Your task to perform on an android device: check battery use Image 0: 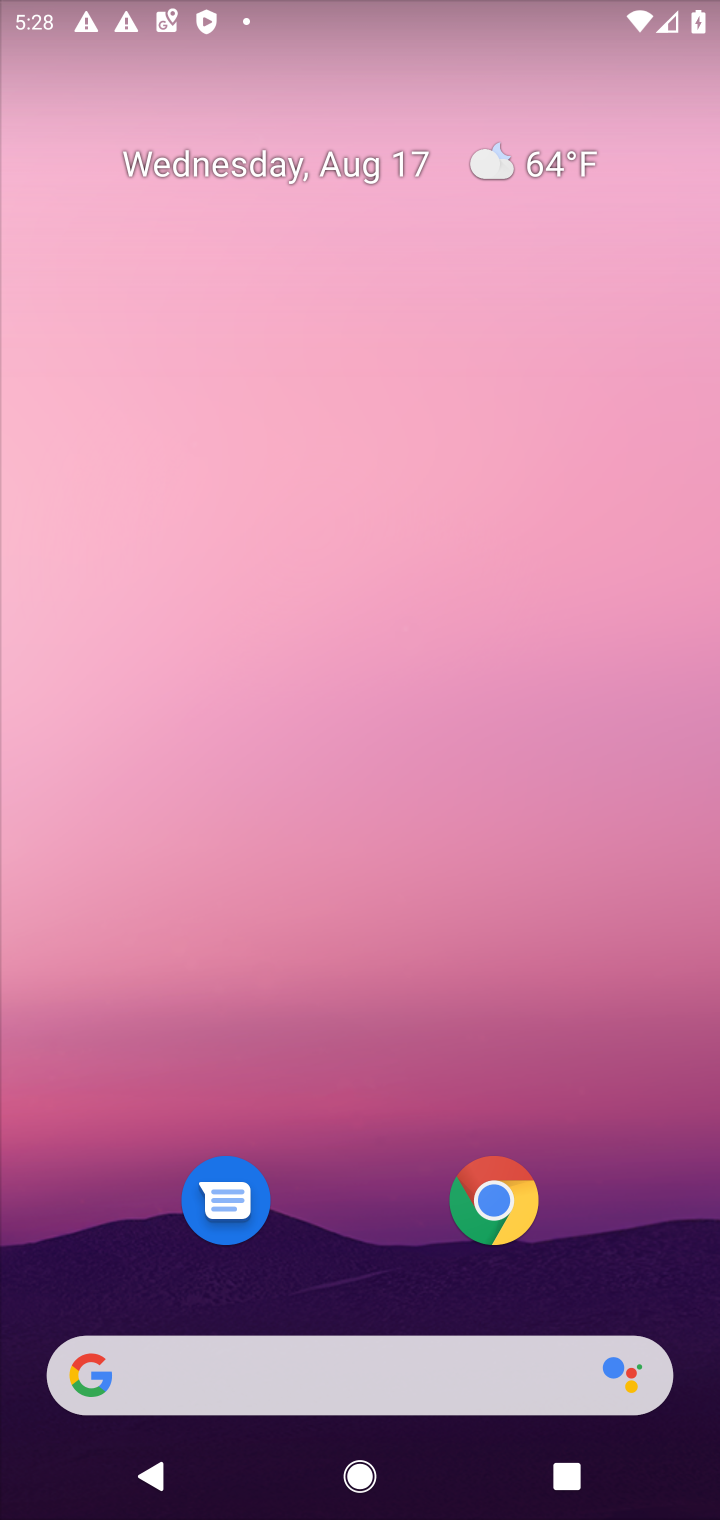
Step 0: drag from (369, 1312) to (397, 65)
Your task to perform on an android device: check battery use Image 1: 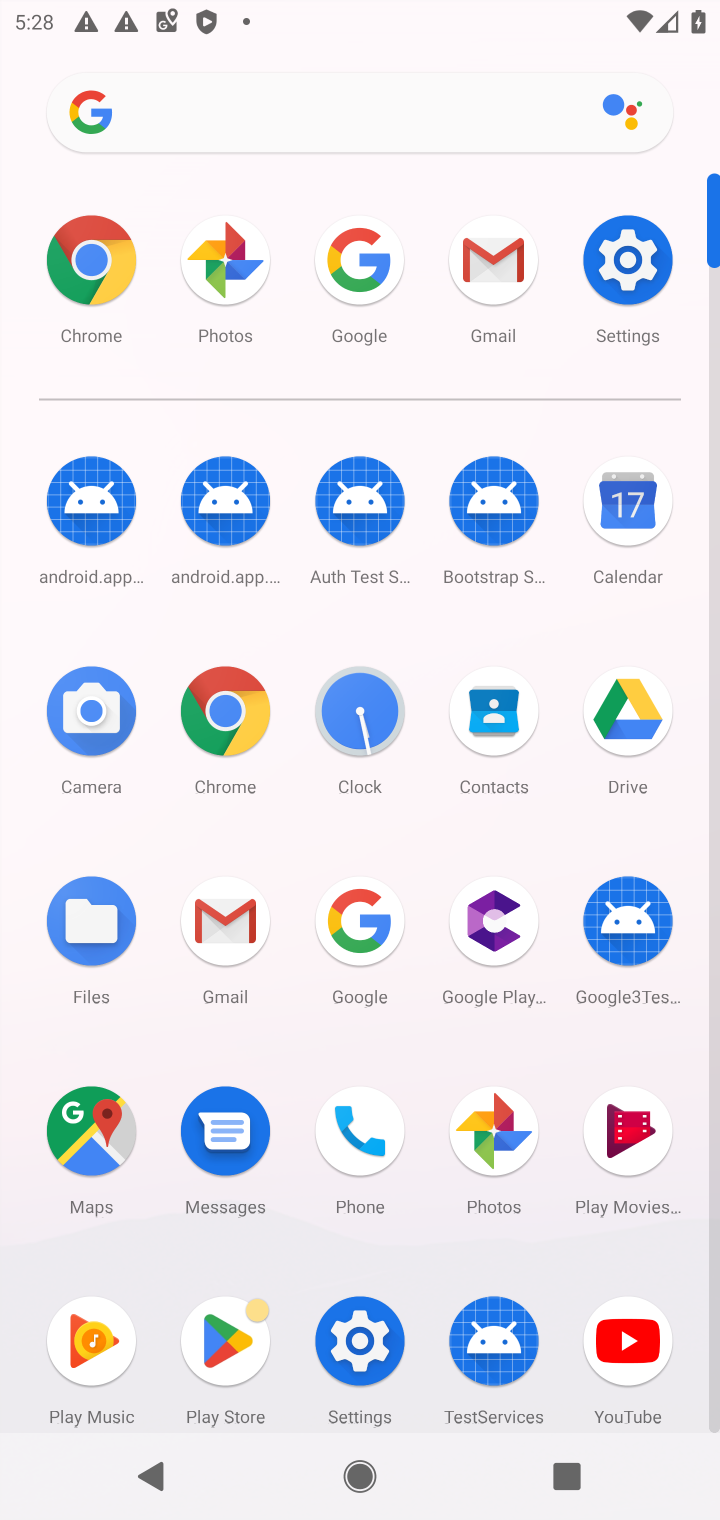
Step 1: click (632, 256)
Your task to perform on an android device: check battery use Image 2: 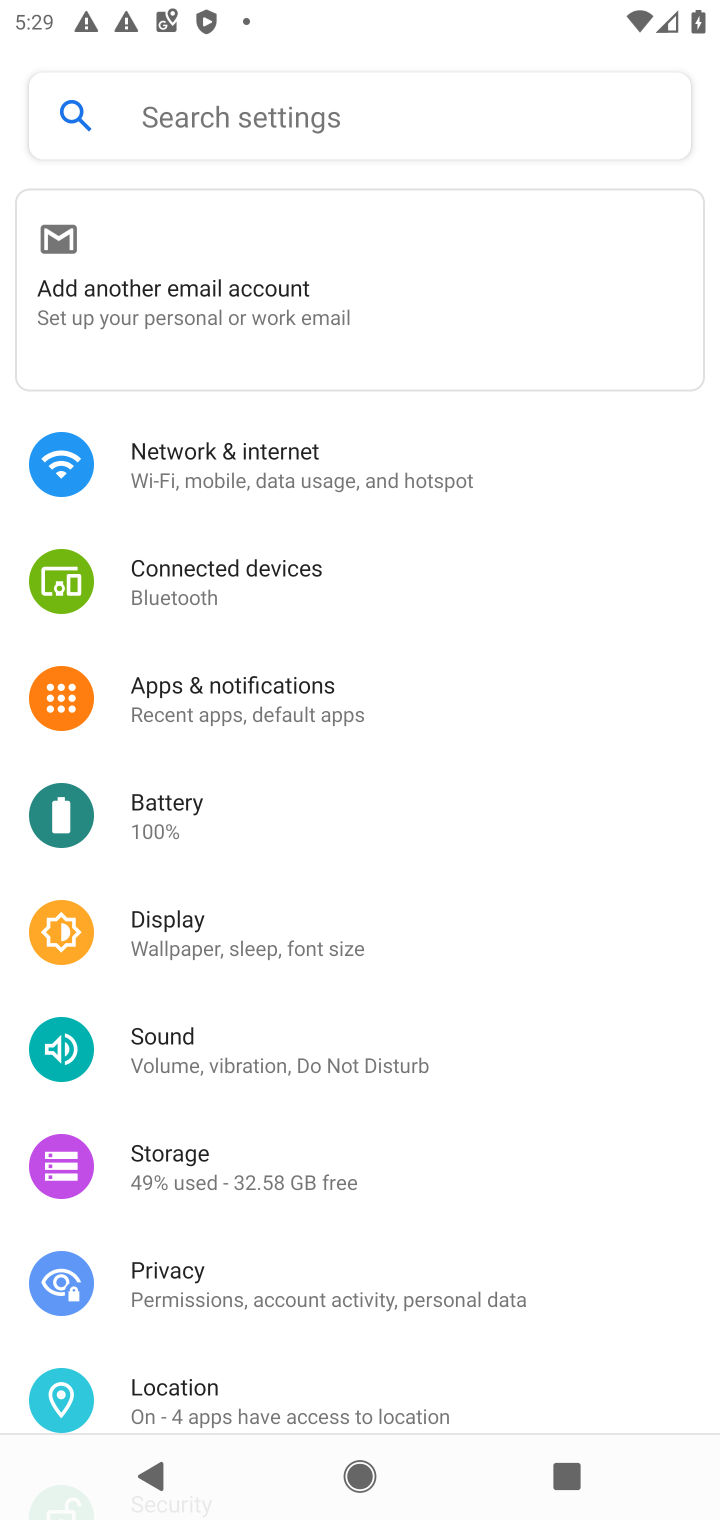
Step 2: click (152, 800)
Your task to perform on an android device: check battery use Image 3: 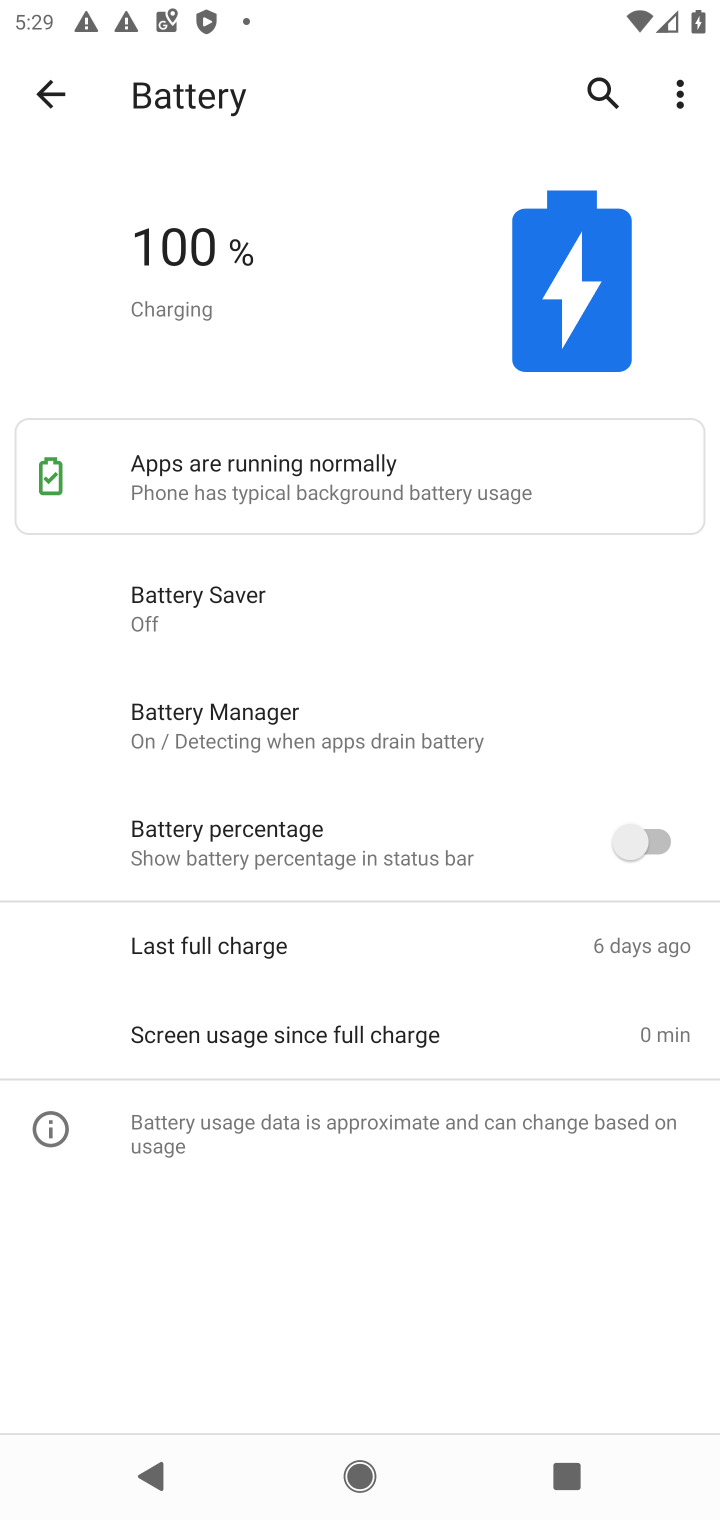
Step 3: click (678, 102)
Your task to perform on an android device: check battery use Image 4: 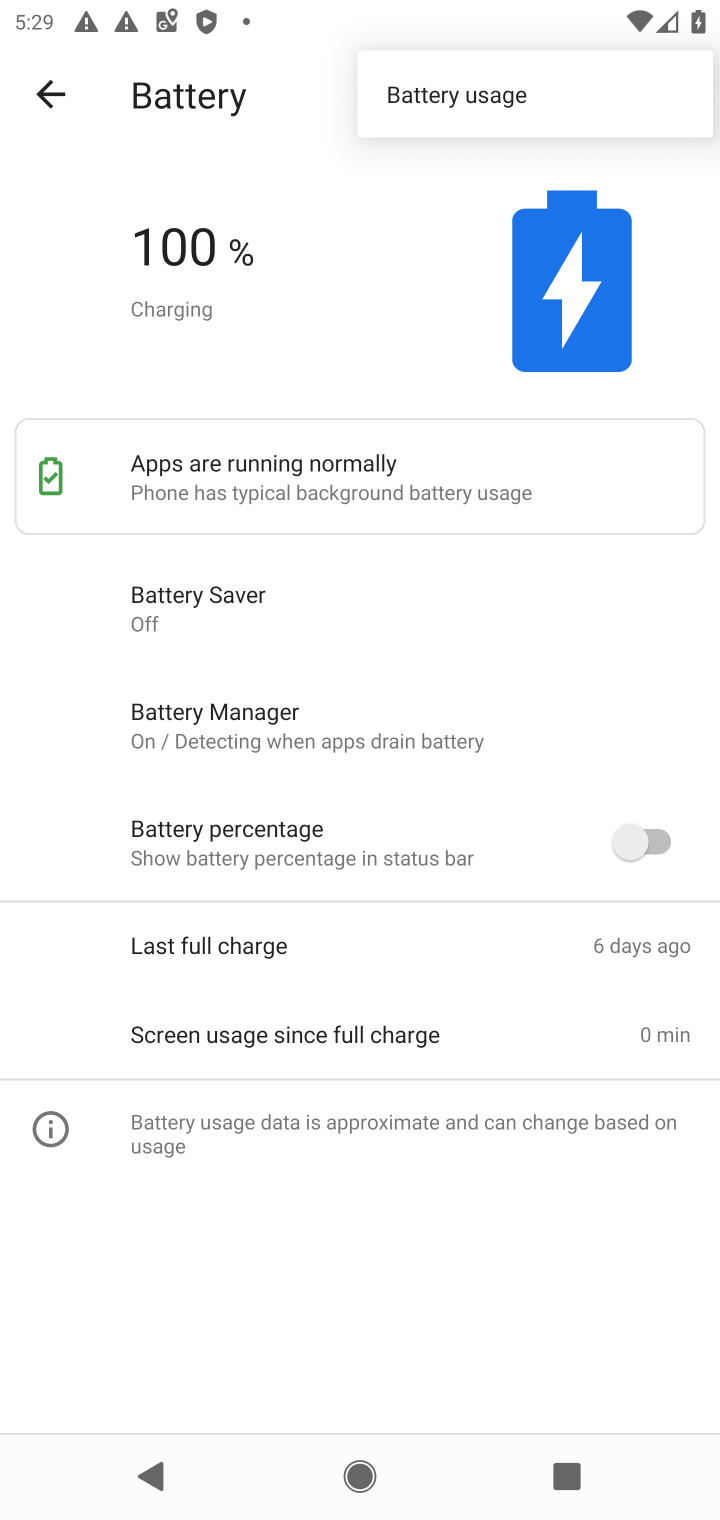
Step 4: click (537, 102)
Your task to perform on an android device: check battery use Image 5: 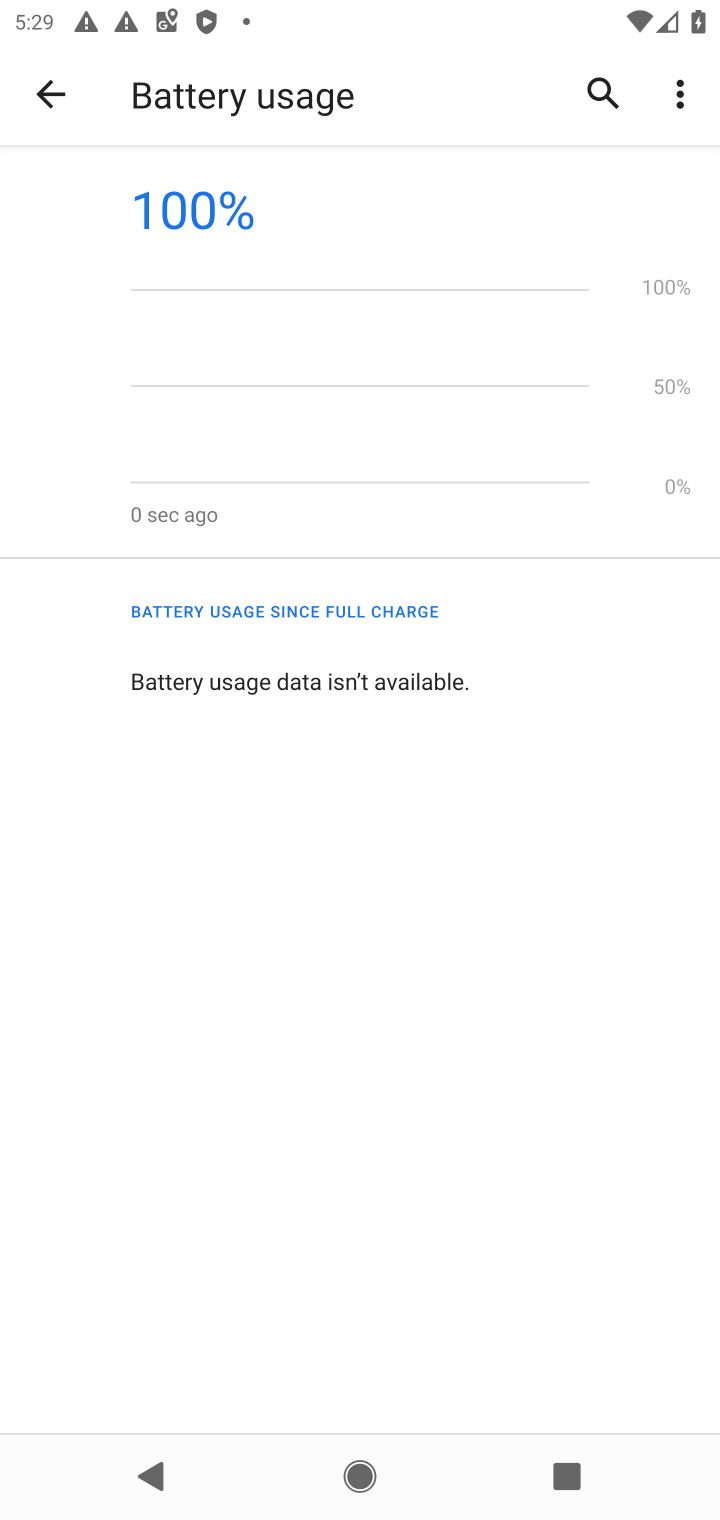
Step 5: task complete